Your task to perform on an android device: toggle airplane mode Image 0: 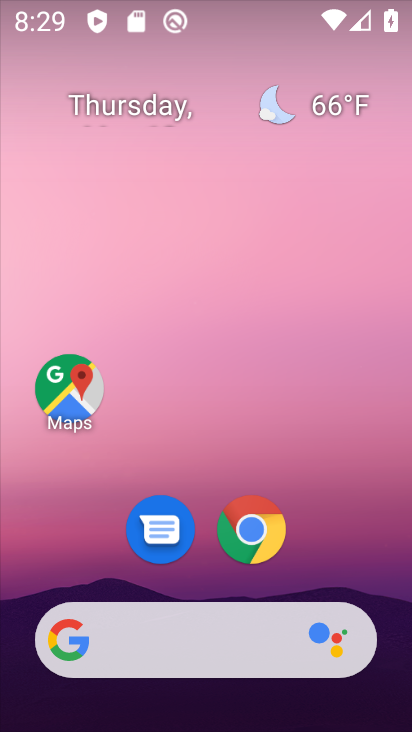
Step 0: drag from (332, 540) to (220, 88)
Your task to perform on an android device: toggle airplane mode Image 1: 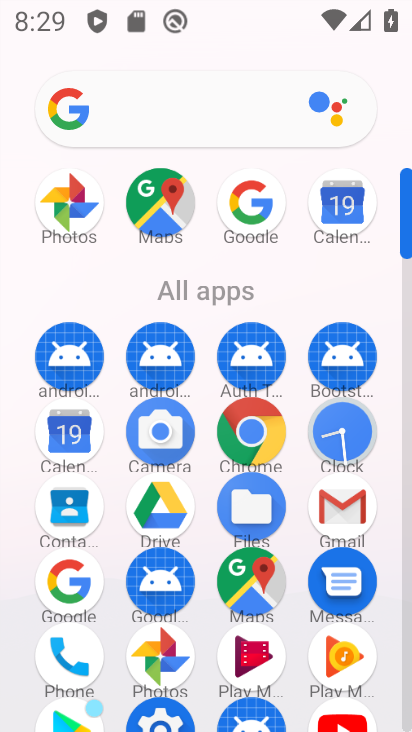
Step 1: drag from (204, 587) to (195, 340)
Your task to perform on an android device: toggle airplane mode Image 2: 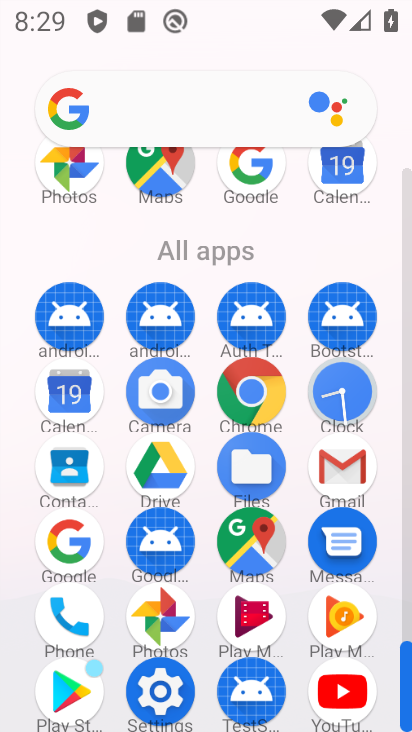
Step 2: click (160, 692)
Your task to perform on an android device: toggle airplane mode Image 3: 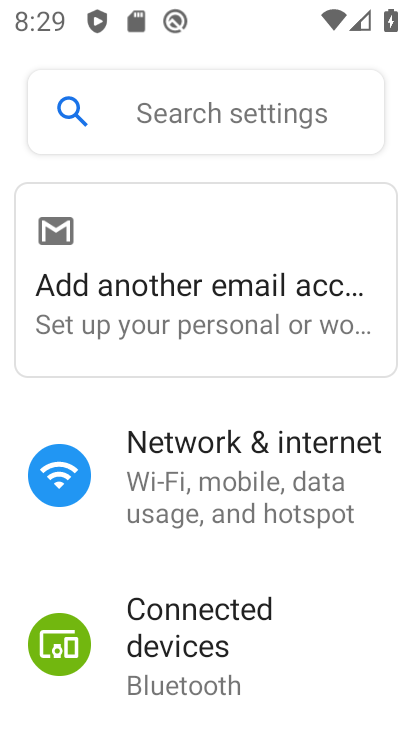
Step 3: click (227, 450)
Your task to perform on an android device: toggle airplane mode Image 4: 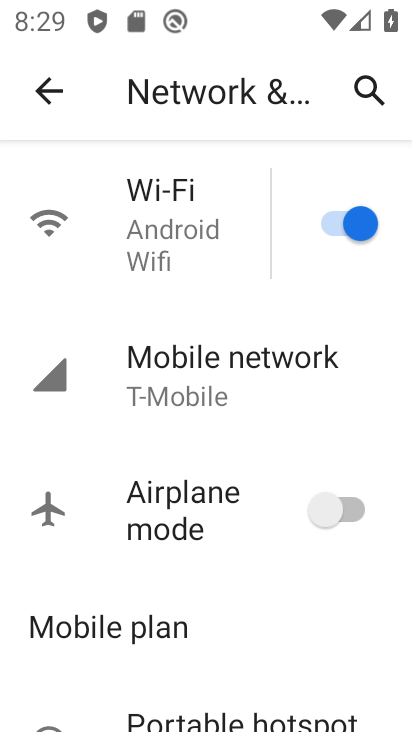
Step 4: click (331, 511)
Your task to perform on an android device: toggle airplane mode Image 5: 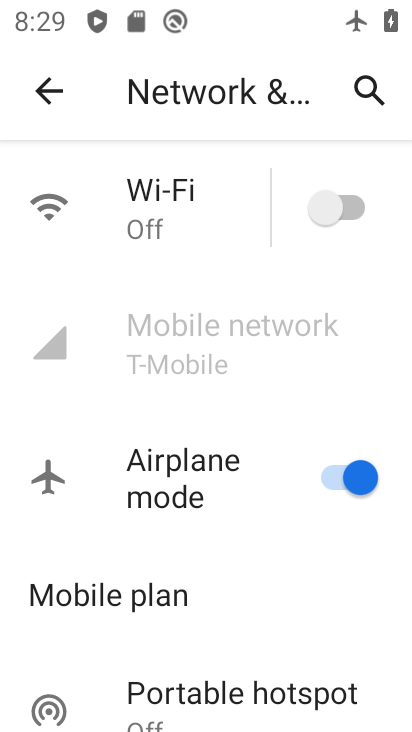
Step 5: task complete